Your task to perform on an android device: Search for a 3d printer on aliexpress Image 0: 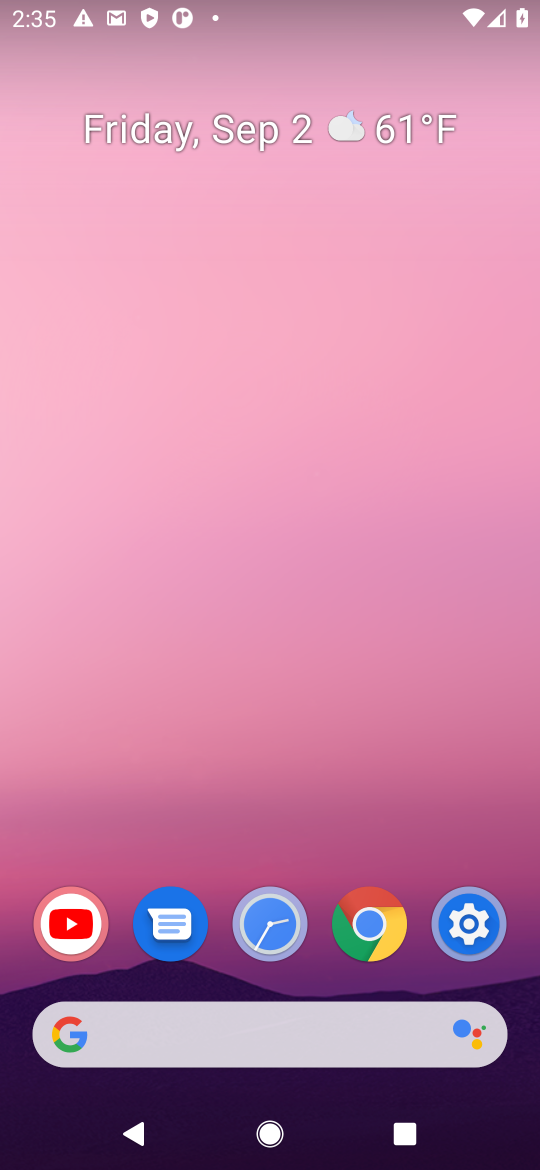
Step 0: press home button
Your task to perform on an android device: Search for a 3d printer on aliexpress Image 1: 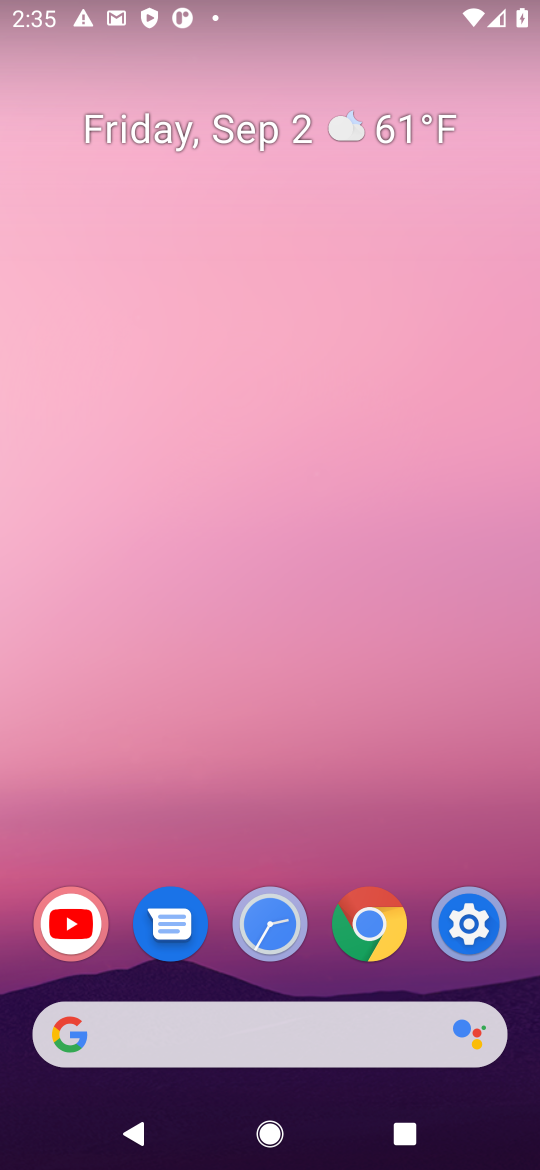
Step 1: click (377, 1045)
Your task to perform on an android device: Search for a 3d printer on aliexpress Image 2: 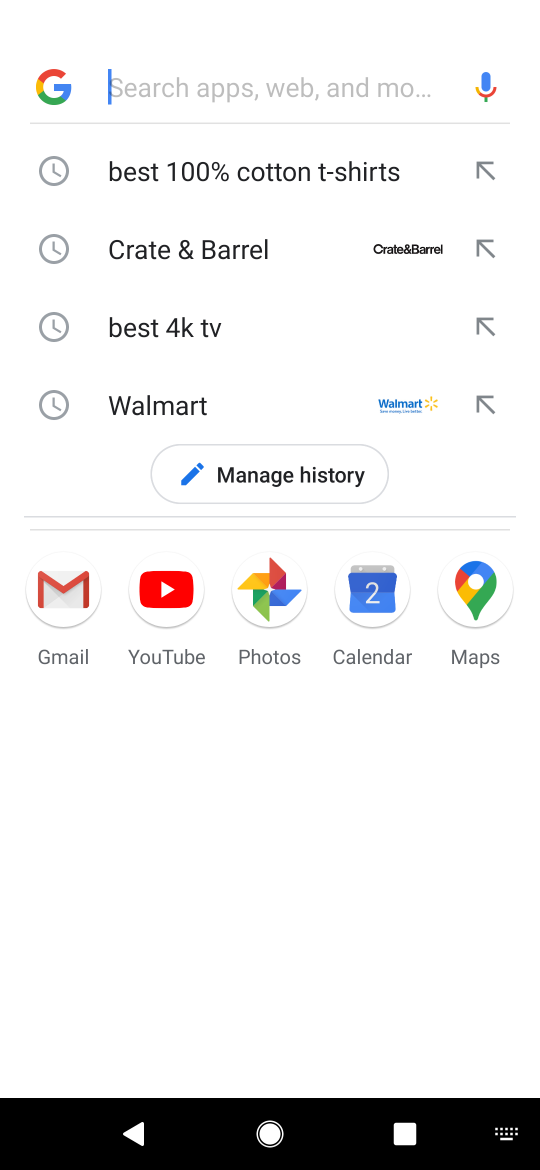
Step 2: press enter
Your task to perform on an android device: Search for a 3d printer on aliexpress Image 3: 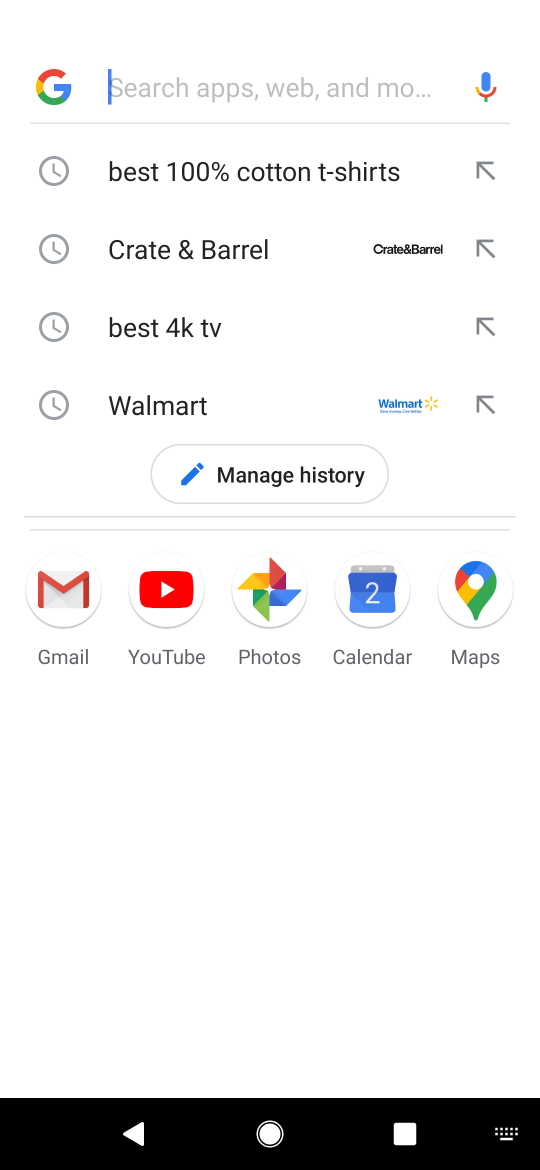
Step 3: type "aliexpress"
Your task to perform on an android device: Search for a 3d printer on aliexpress Image 4: 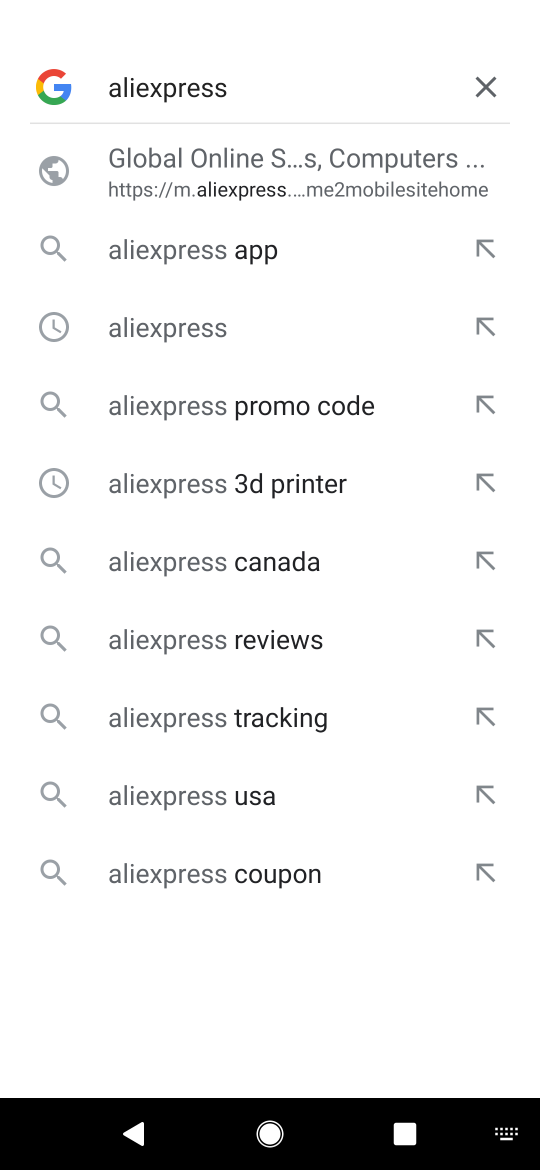
Step 4: click (242, 166)
Your task to perform on an android device: Search for a 3d printer on aliexpress Image 5: 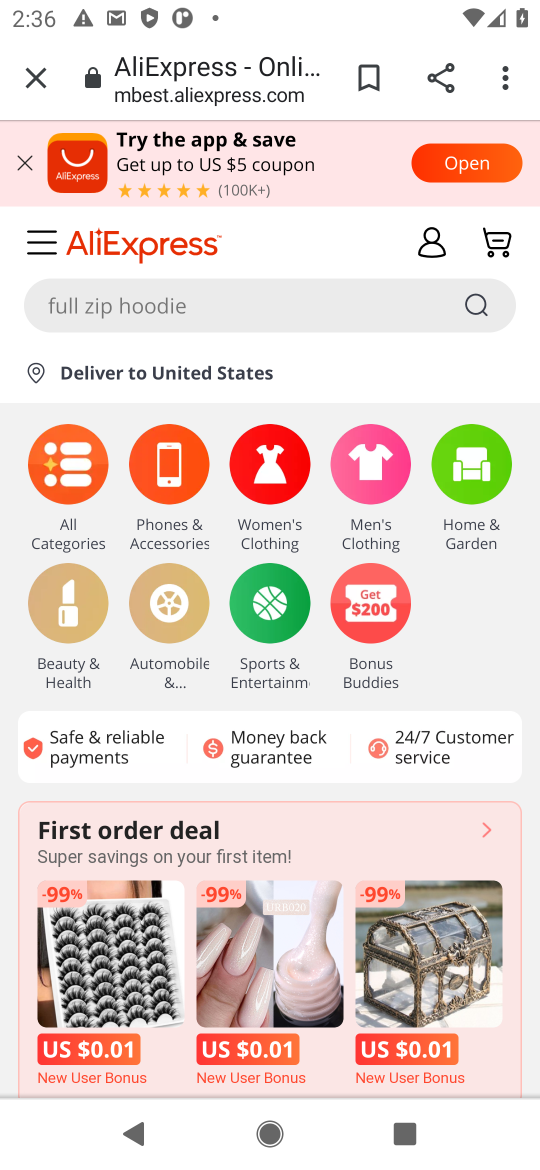
Step 5: click (307, 307)
Your task to perform on an android device: Search for a 3d printer on aliexpress Image 6: 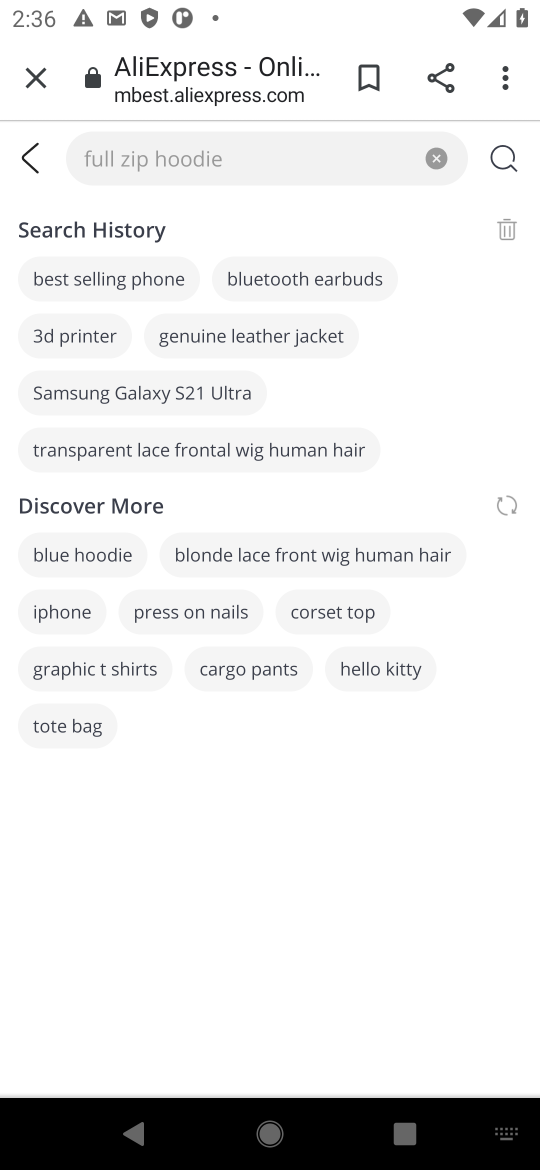
Step 6: click (78, 335)
Your task to perform on an android device: Search for a 3d printer on aliexpress Image 7: 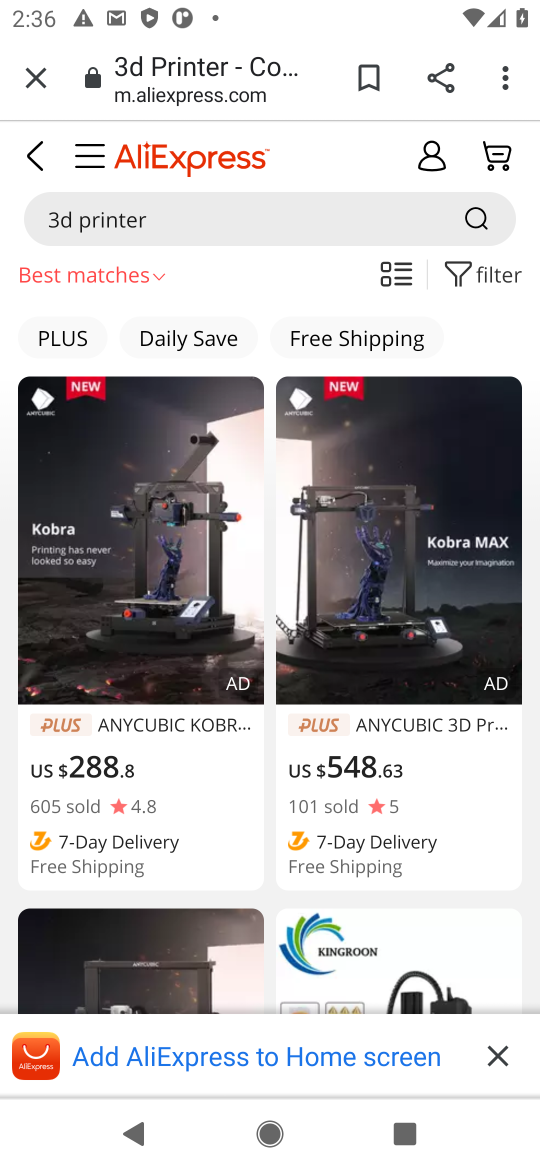
Step 7: task complete